Your task to perform on an android device: Open Google Image 0: 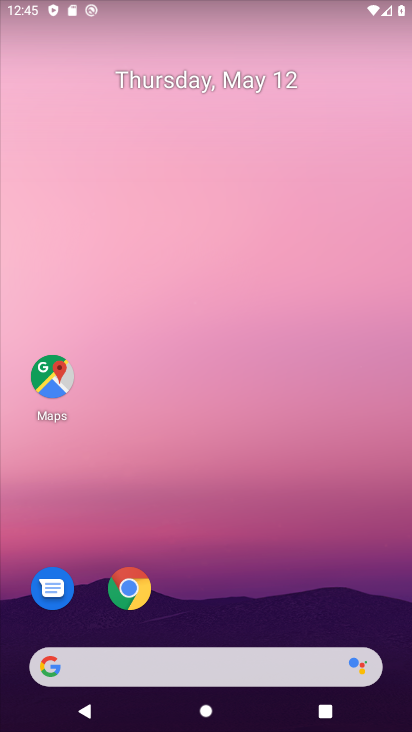
Step 0: drag from (216, 580) to (227, 124)
Your task to perform on an android device: Open Google Image 1: 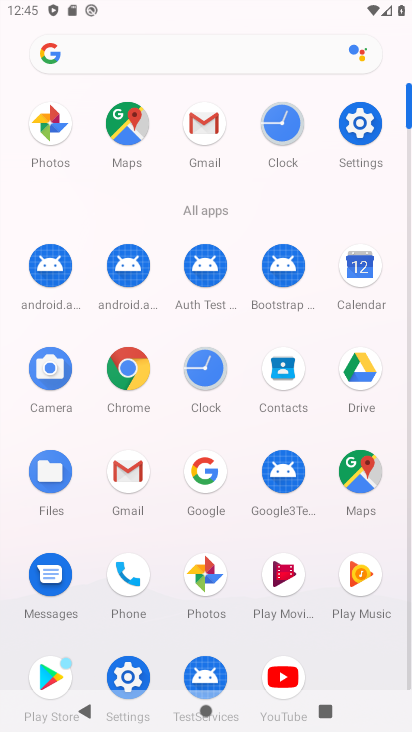
Step 1: click (207, 472)
Your task to perform on an android device: Open Google Image 2: 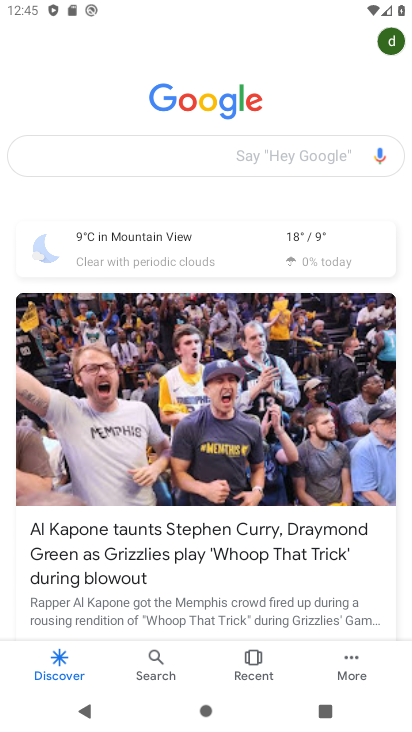
Step 2: task complete